Your task to perform on an android device: turn off sleep mode Image 0: 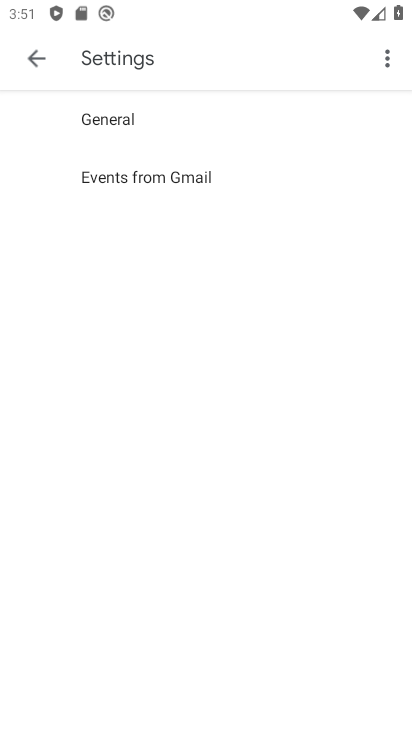
Step 0: press back button
Your task to perform on an android device: turn off sleep mode Image 1: 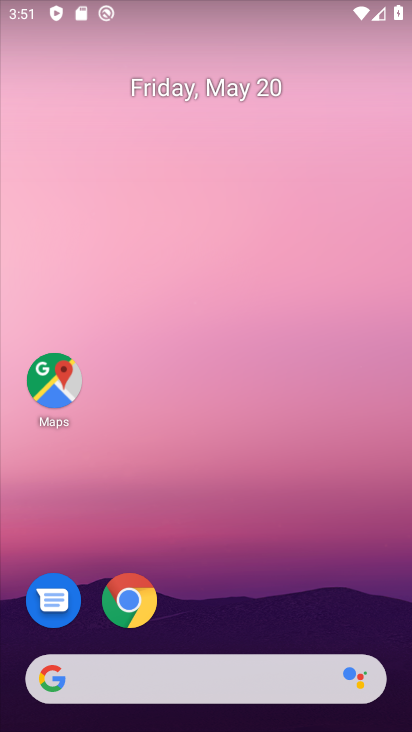
Step 1: drag from (204, 633) to (305, 74)
Your task to perform on an android device: turn off sleep mode Image 2: 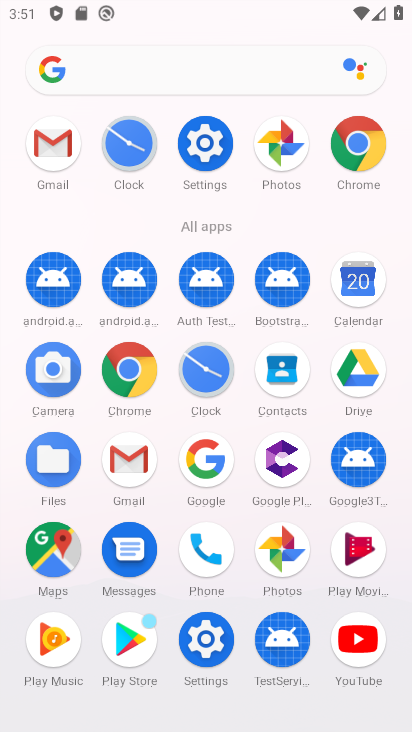
Step 2: click (205, 149)
Your task to perform on an android device: turn off sleep mode Image 3: 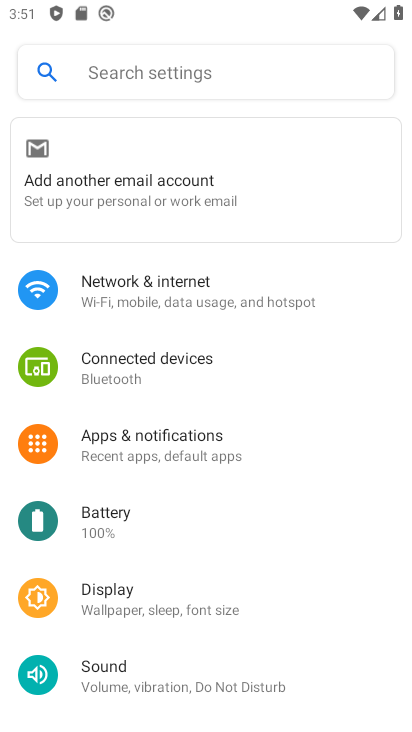
Step 3: click (179, 78)
Your task to perform on an android device: turn off sleep mode Image 4: 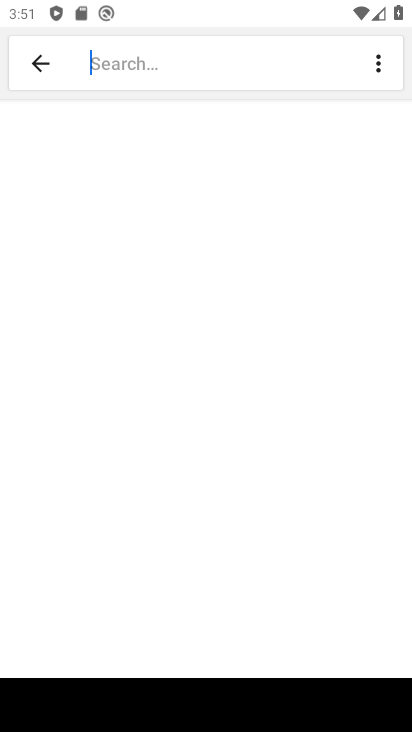
Step 4: type "sleep mode"
Your task to perform on an android device: turn off sleep mode Image 5: 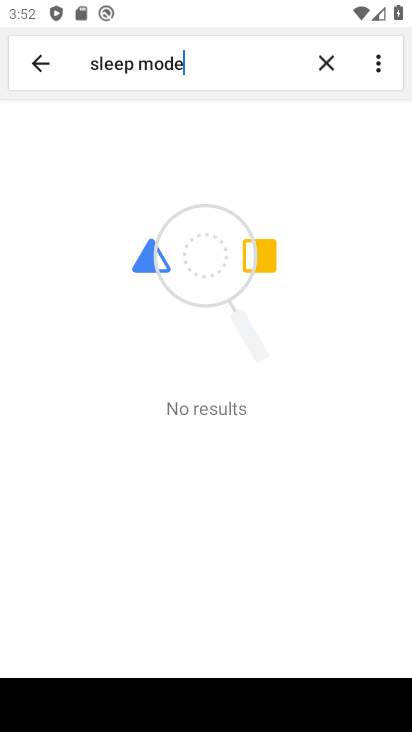
Step 5: task complete